Your task to perform on an android device: Show me popular games on the Play Store Image 0: 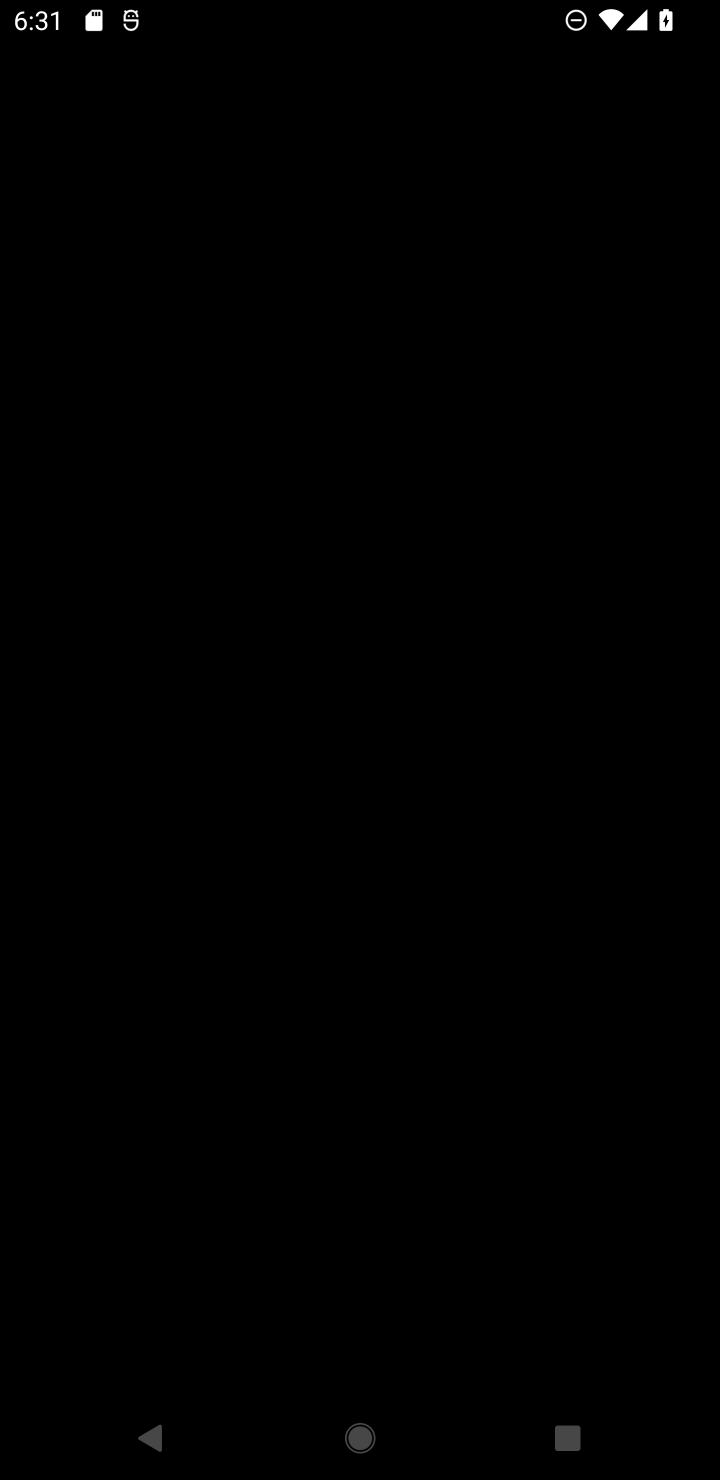
Step 0: press home button
Your task to perform on an android device: Show me popular games on the Play Store Image 1: 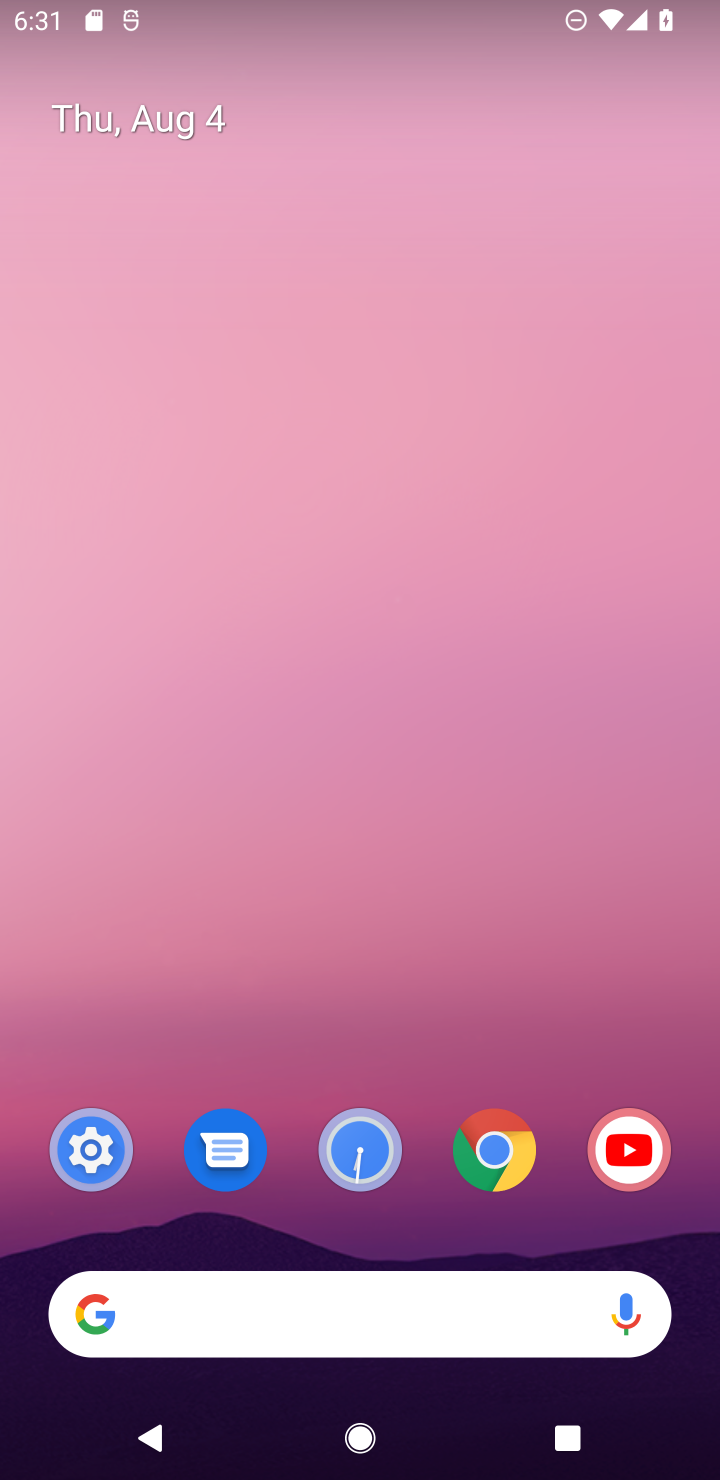
Step 1: drag from (489, 1284) to (450, 8)
Your task to perform on an android device: Show me popular games on the Play Store Image 2: 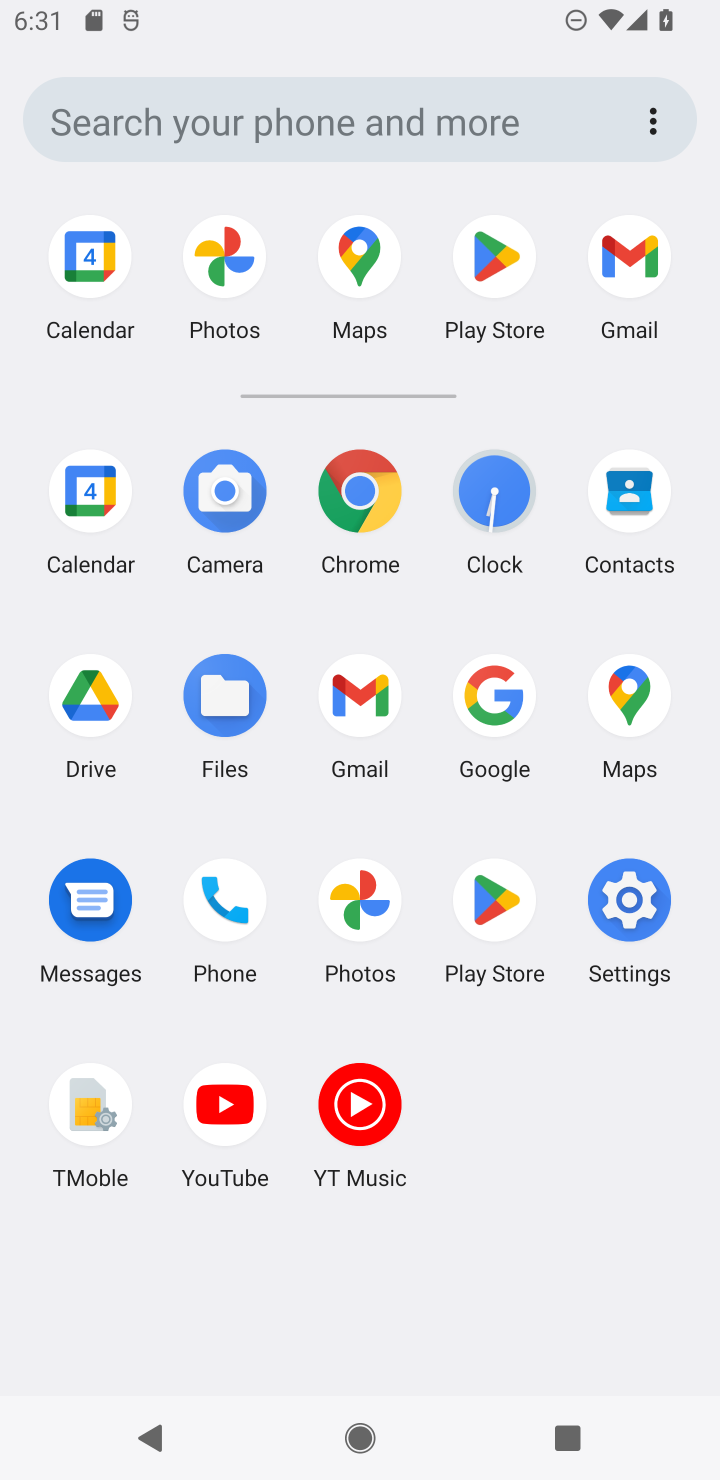
Step 2: click (496, 897)
Your task to perform on an android device: Show me popular games on the Play Store Image 3: 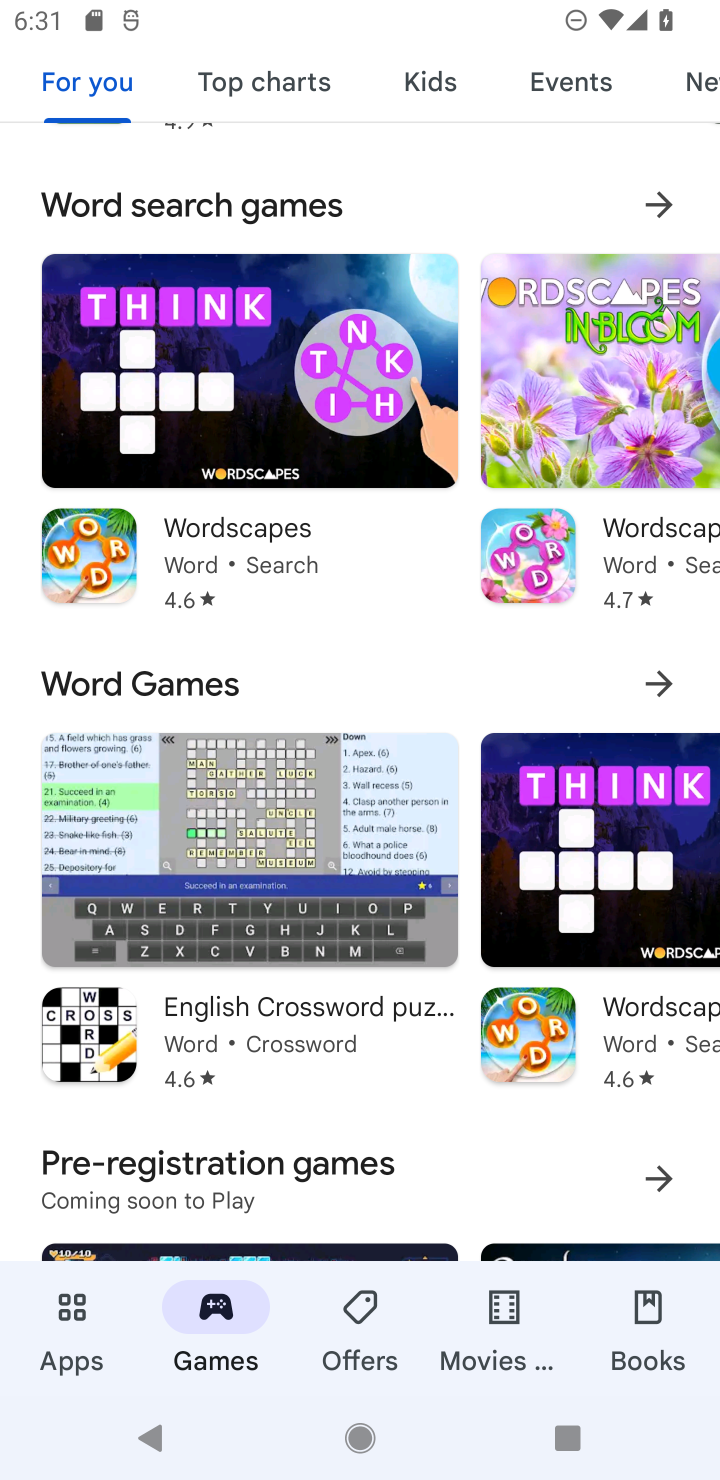
Step 3: task complete